Your task to perform on an android device: change timer sound Image 0: 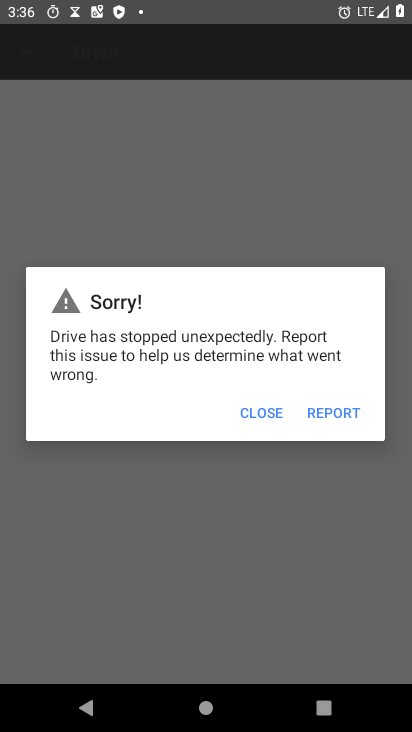
Step 0: press home button
Your task to perform on an android device: change timer sound Image 1: 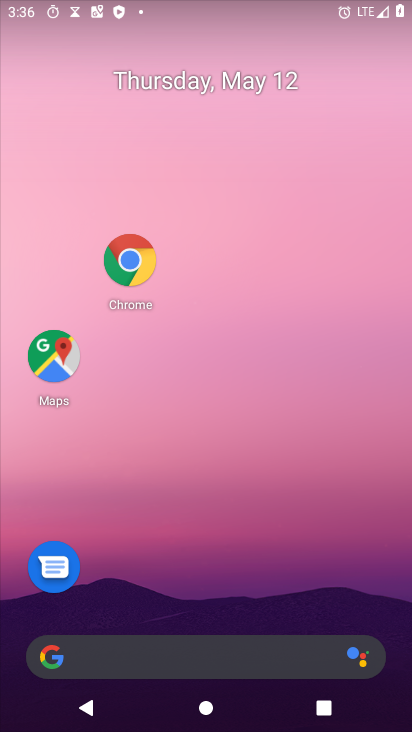
Step 1: drag from (143, 635) to (217, 233)
Your task to perform on an android device: change timer sound Image 2: 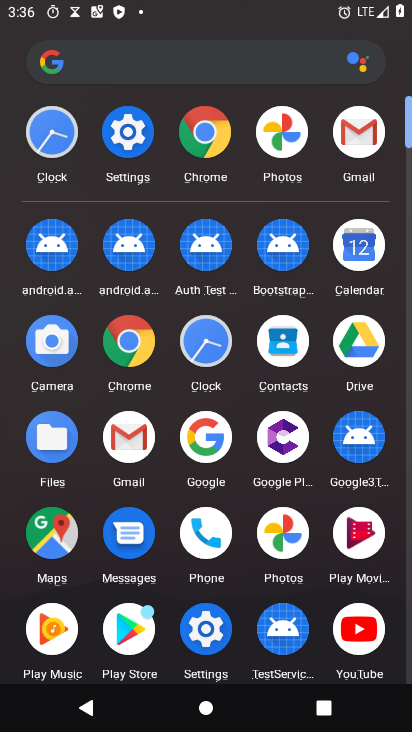
Step 2: click (199, 346)
Your task to perform on an android device: change timer sound Image 3: 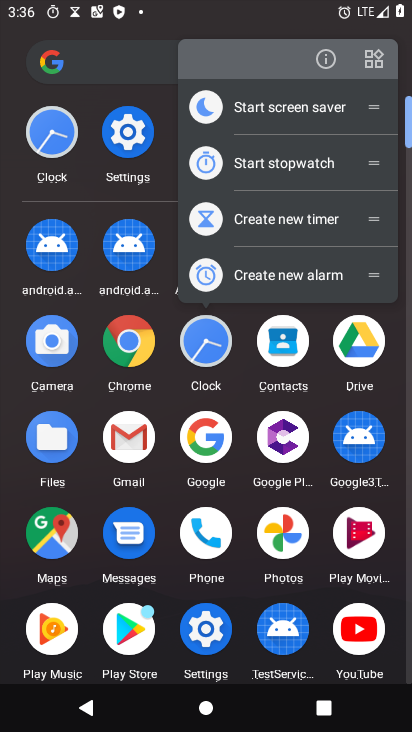
Step 3: click (200, 345)
Your task to perform on an android device: change timer sound Image 4: 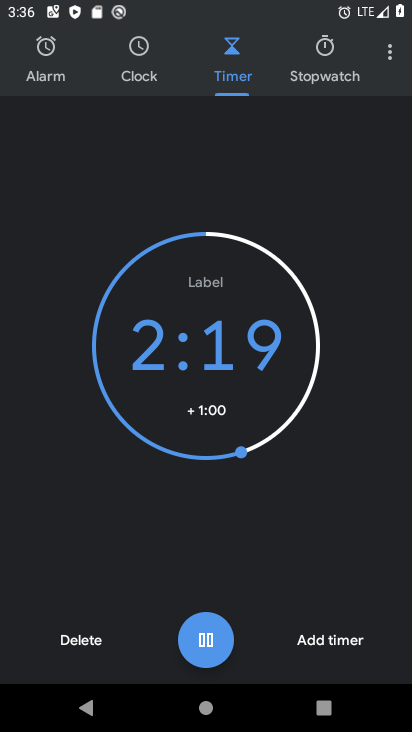
Step 4: click (388, 52)
Your task to perform on an android device: change timer sound Image 5: 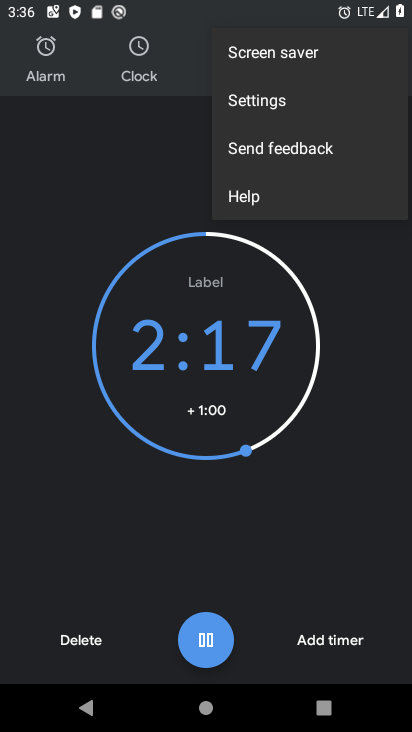
Step 5: click (288, 106)
Your task to perform on an android device: change timer sound Image 6: 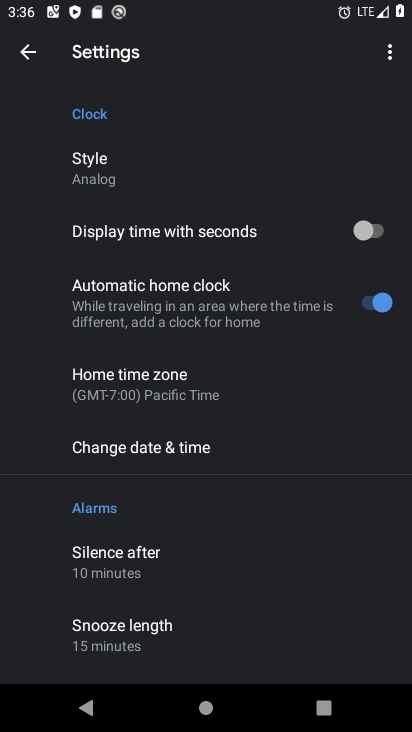
Step 6: drag from (203, 643) to (201, 340)
Your task to perform on an android device: change timer sound Image 7: 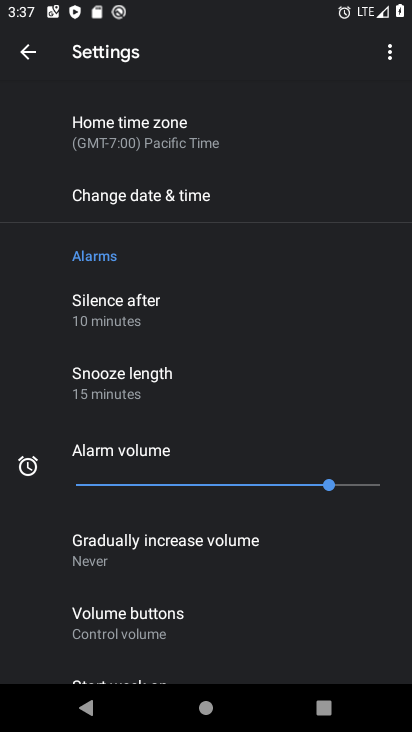
Step 7: drag from (206, 643) to (276, 241)
Your task to perform on an android device: change timer sound Image 8: 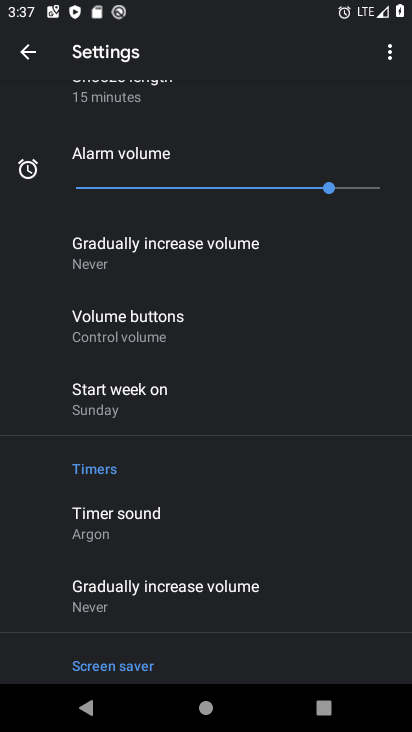
Step 8: drag from (177, 657) to (235, 336)
Your task to perform on an android device: change timer sound Image 9: 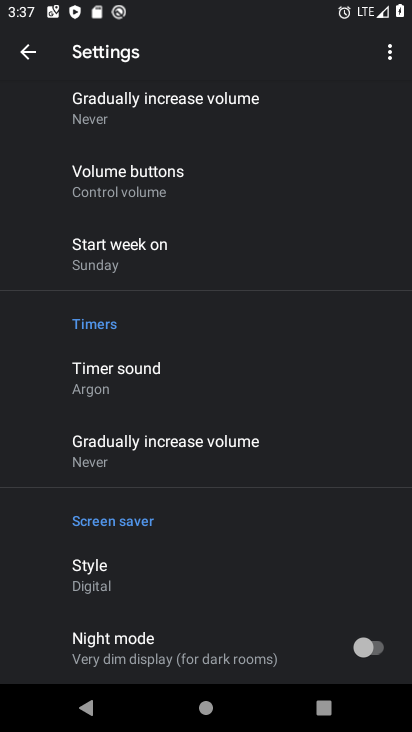
Step 9: click (140, 373)
Your task to perform on an android device: change timer sound Image 10: 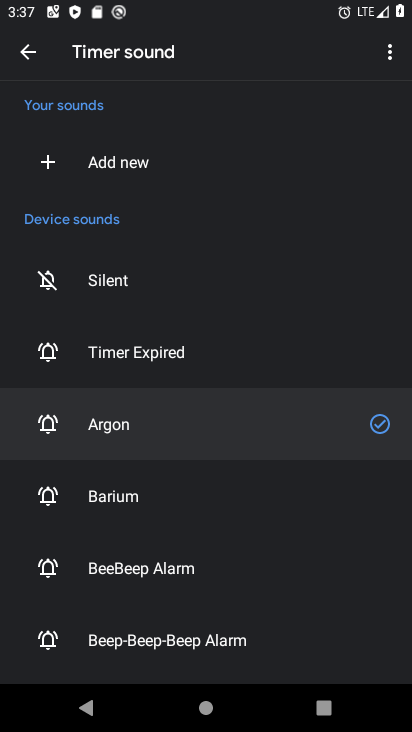
Step 10: click (117, 500)
Your task to perform on an android device: change timer sound Image 11: 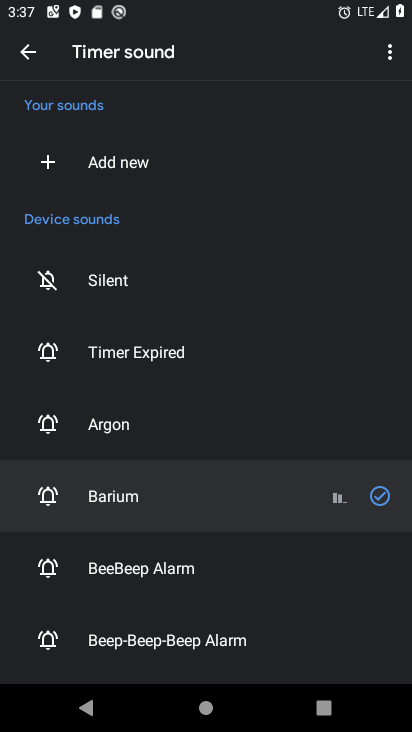
Step 11: task complete